Your task to perform on an android device: What's on my calendar tomorrow? Image 0: 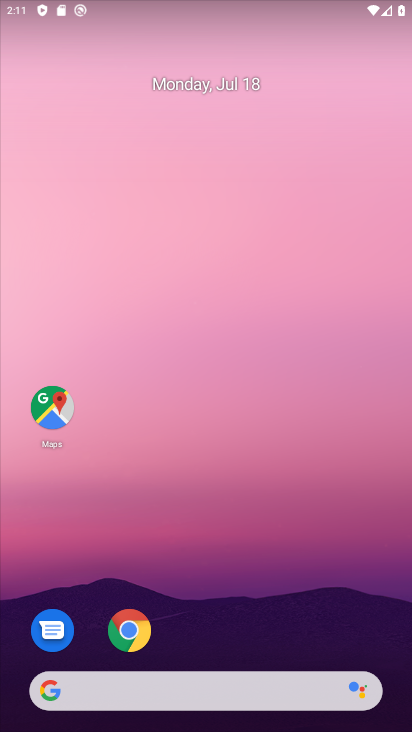
Step 0: drag from (383, 661) to (311, 42)
Your task to perform on an android device: What's on my calendar tomorrow? Image 1: 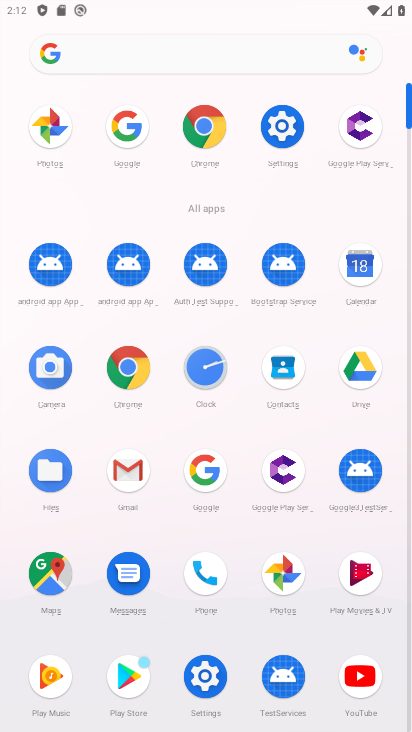
Step 1: click (366, 256)
Your task to perform on an android device: What's on my calendar tomorrow? Image 2: 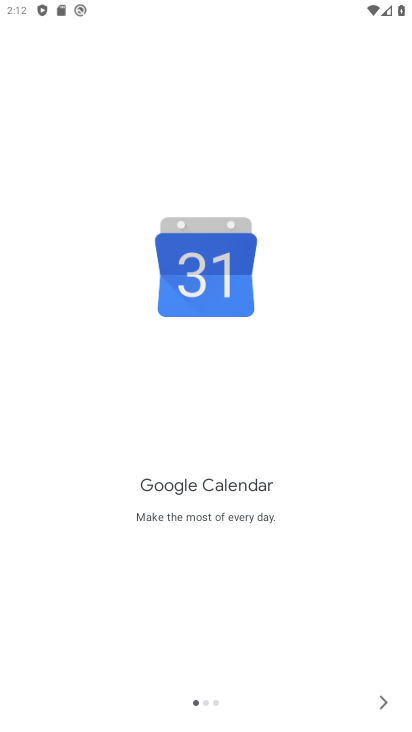
Step 2: click (381, 703)
Your task to perform on an android device: What's on my calendar tomorrow? Image 3: 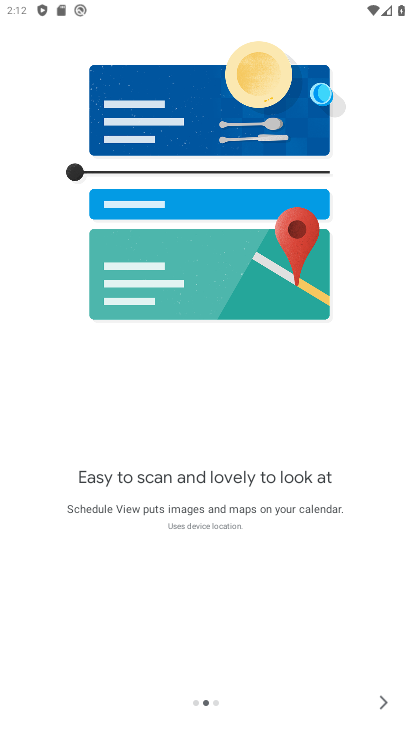
Step 3: click (381, 703)
Your task to perform on an android device: What's on my calendar tomorrow? Image 4: 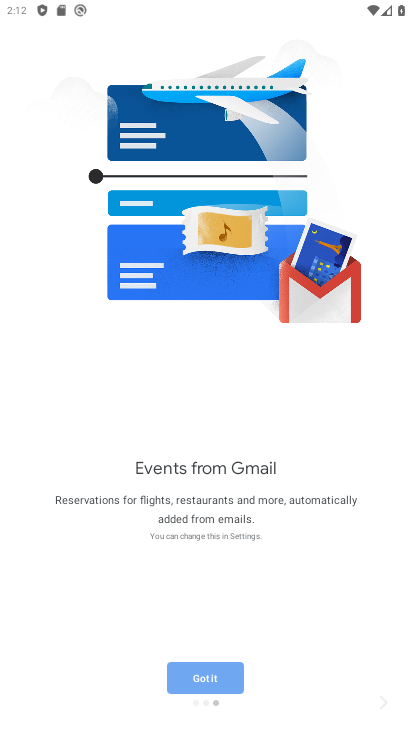
Step 4: click (381, 703)
Your task to perform on an android device: What's on my calendar tomorrow? Image 5: 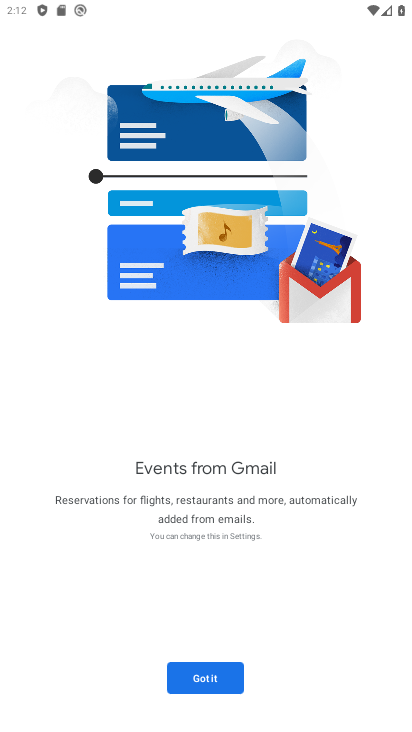
Step 5: click (230, 667)
Your task to perform on an android device: What's on my calendar tomorrow? Image 6: 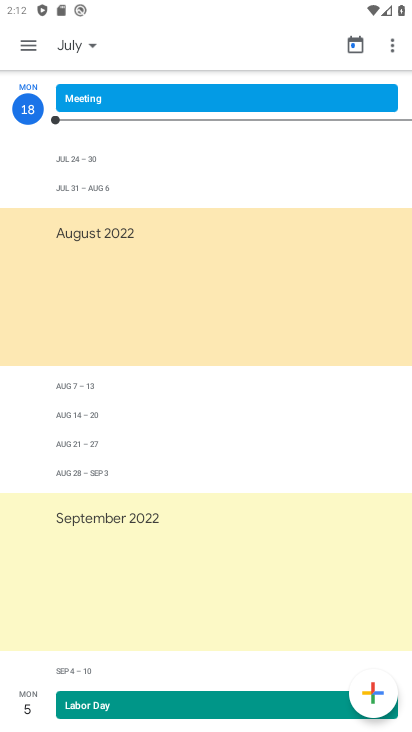
Step 6: task complete